Your task to perform on an android device: Open Google Maps and go to "Timeline" Image 0: 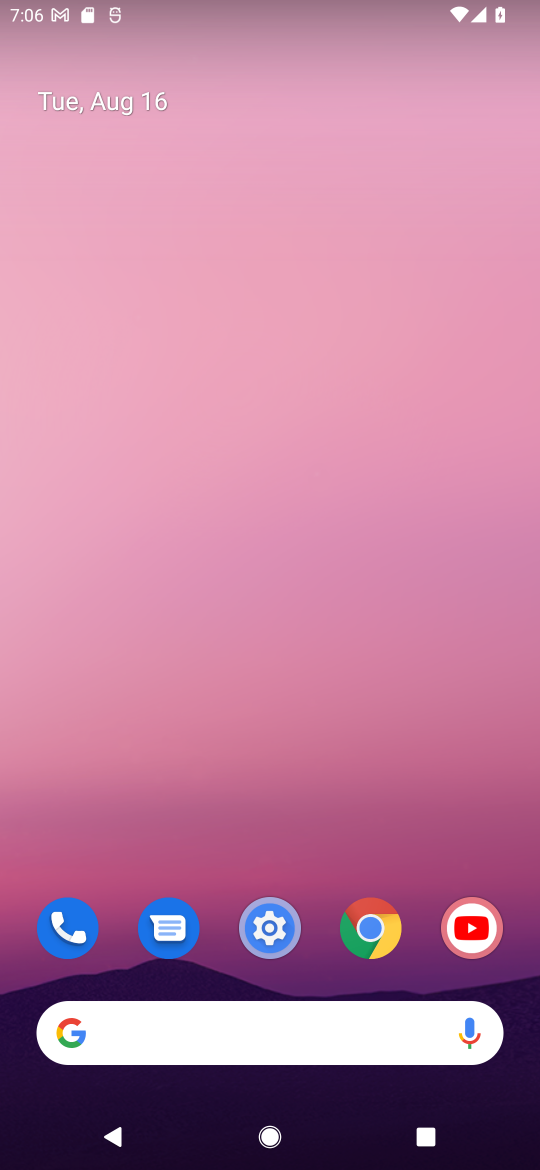
Step 0: drag from (284, 1018) to (379, 7)
Your task to perform on an android device: Open Google Maps and go to "Timeline" Image 1: 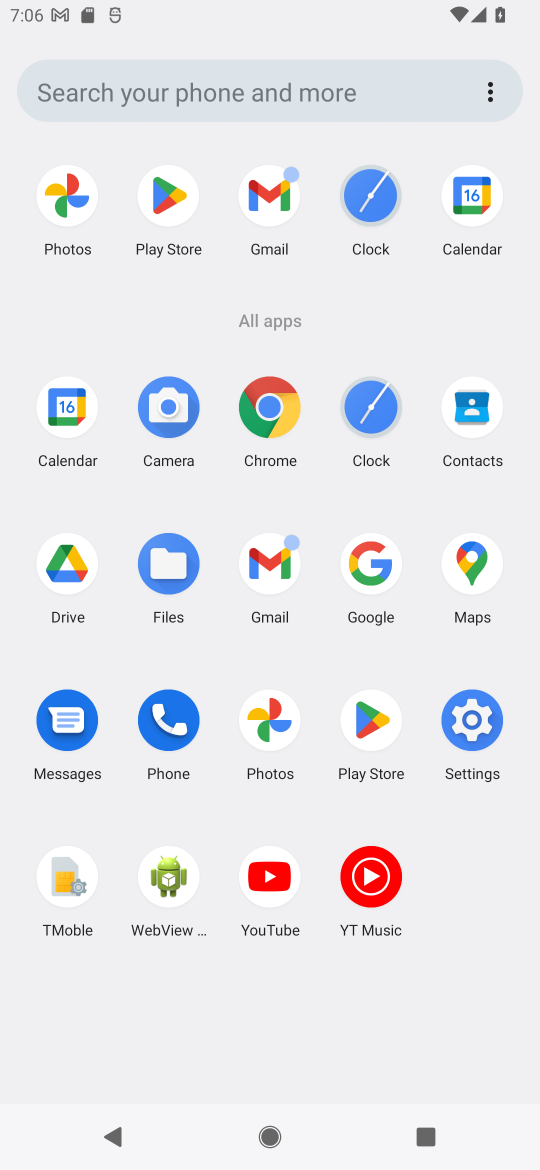
Step 1: click (481, 568)
Your task to perform on an android device: Open Google Maps and go to "Timeline" Image 2: 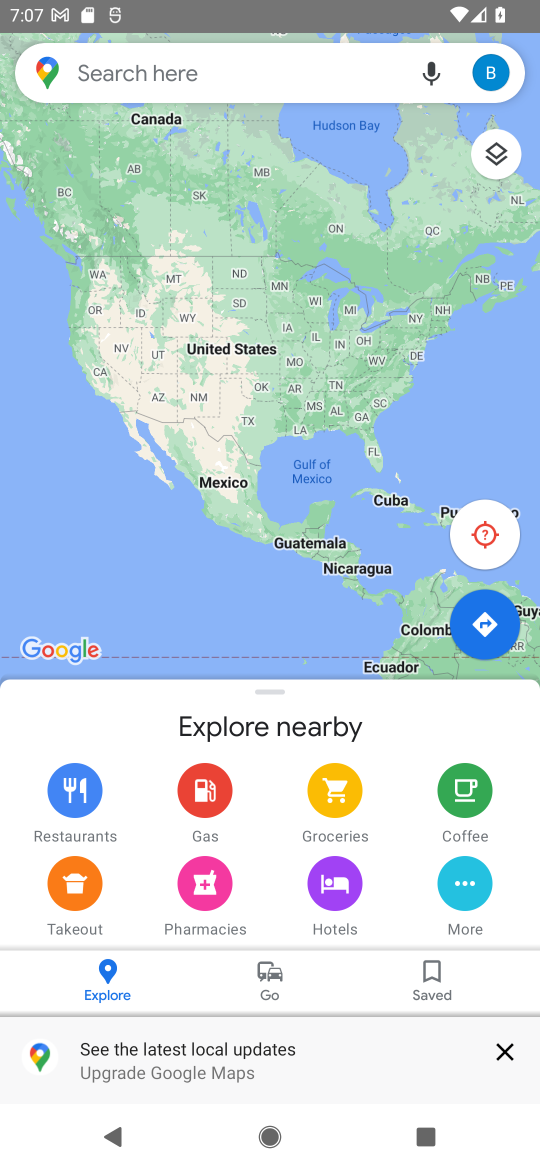
Step 2: click (500, 69)
Your task to perform on an android device: Open Google Maps and go to "Timeline" Image 3: 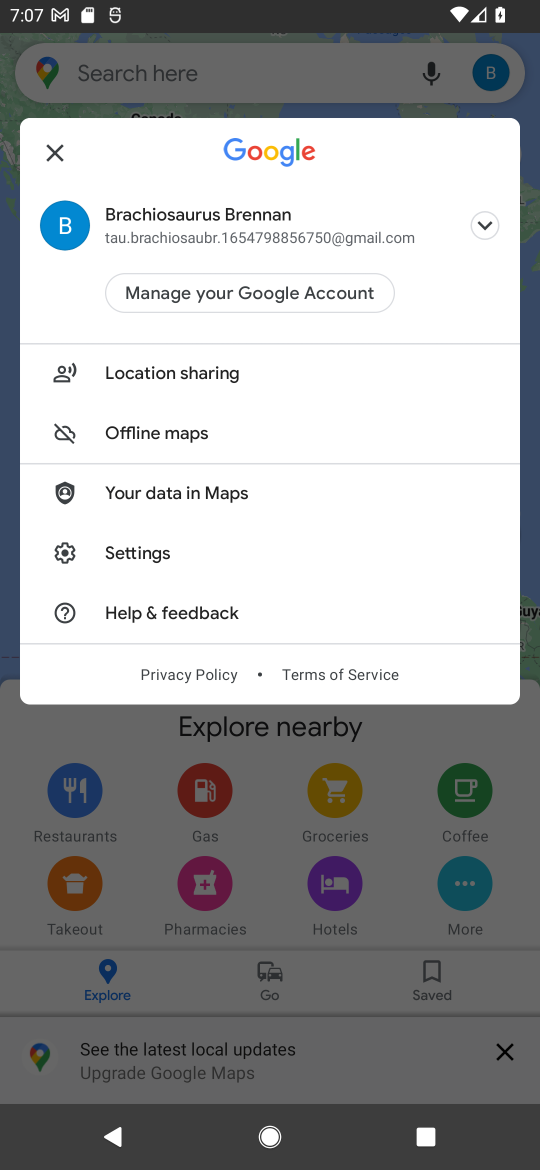
Step 3: click (124, 557)
Your task to perform on an android device: Open Google Maps and go to "Timeline" Image 4: 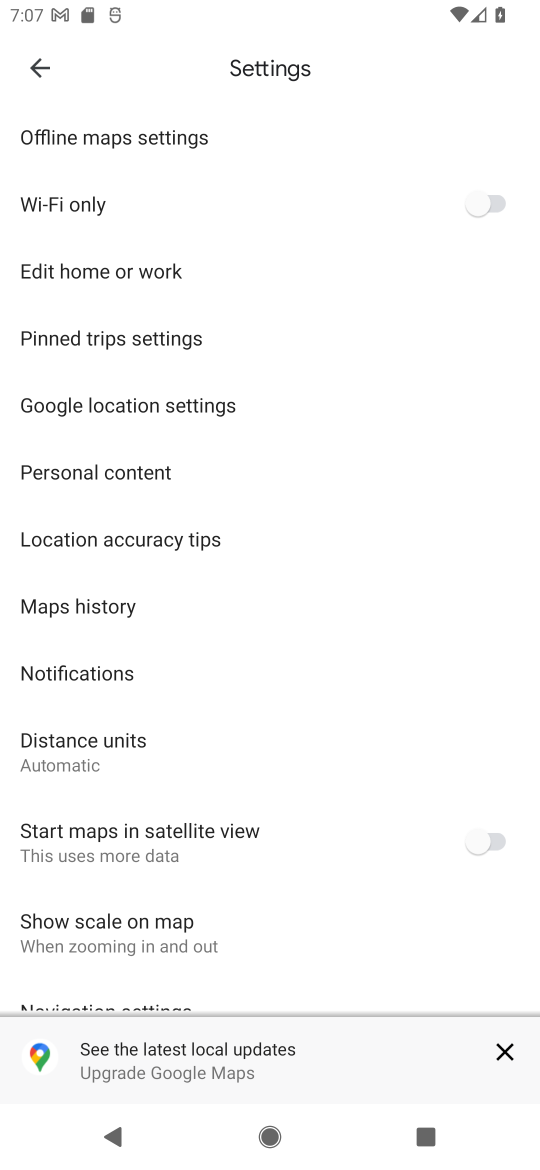
Step 4: task complete